Your task to perform on an android device: allow cookies in the chrome app Image 0: 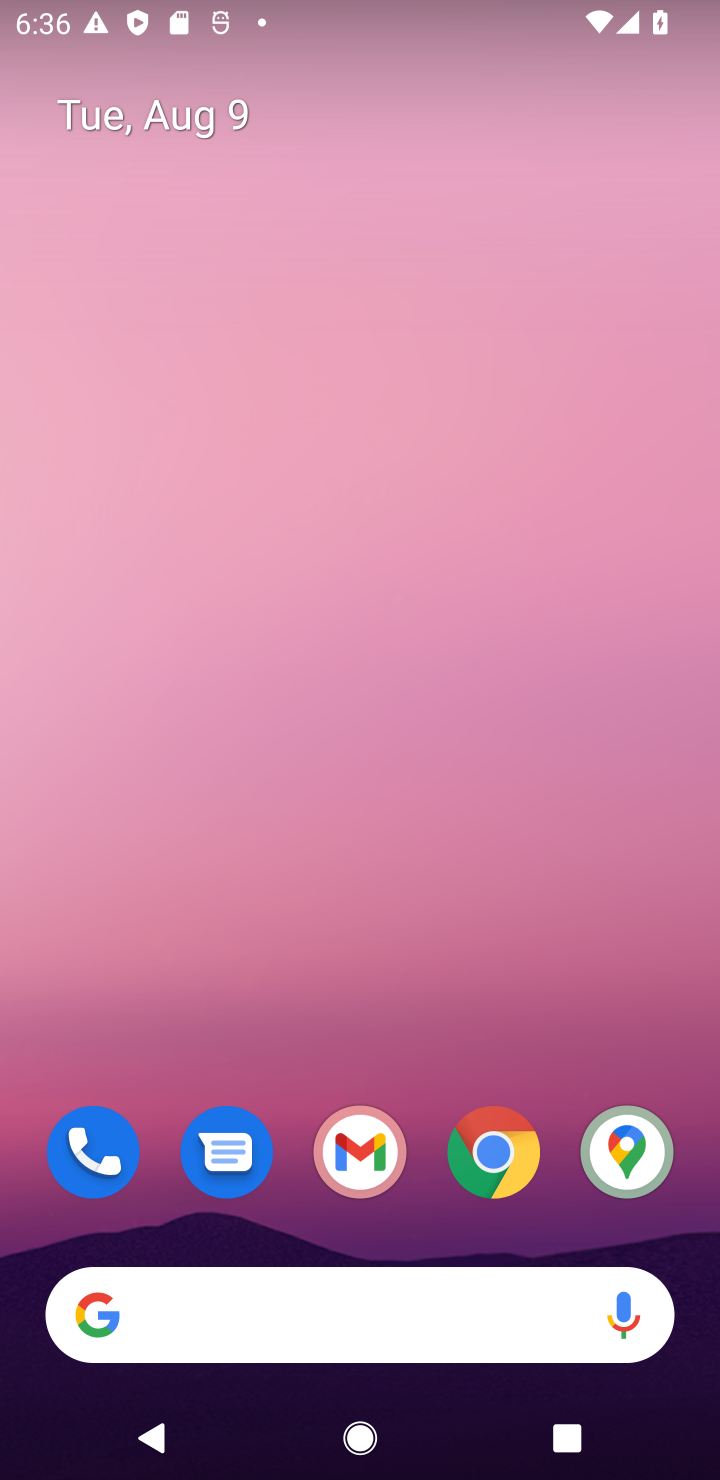
Step 0: press back button
Your task to perform on an android device: allow cookies in the chrome app Image 1: 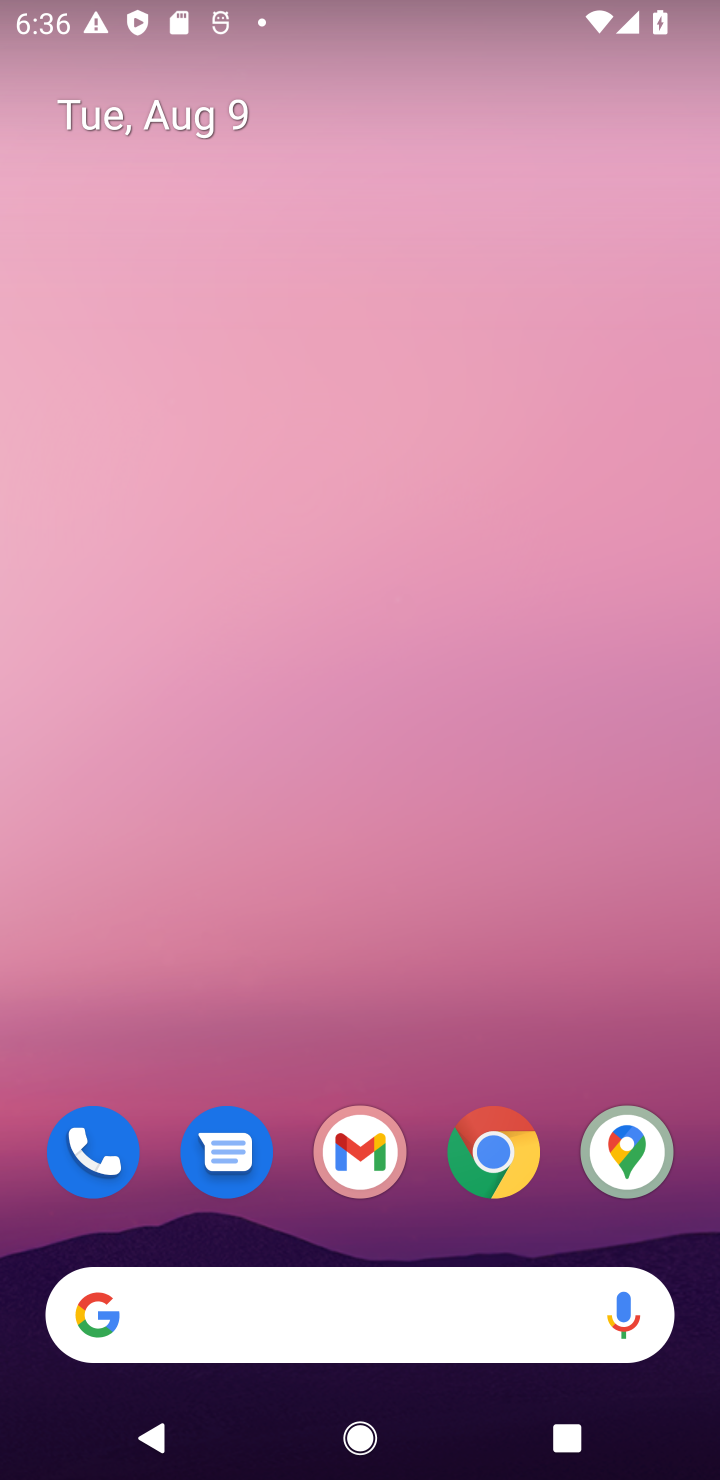
Step 1: drag from (420, 1250) to (514, 115)
Your task to perform on an android device: allow cookies in the chrome app Image 2: 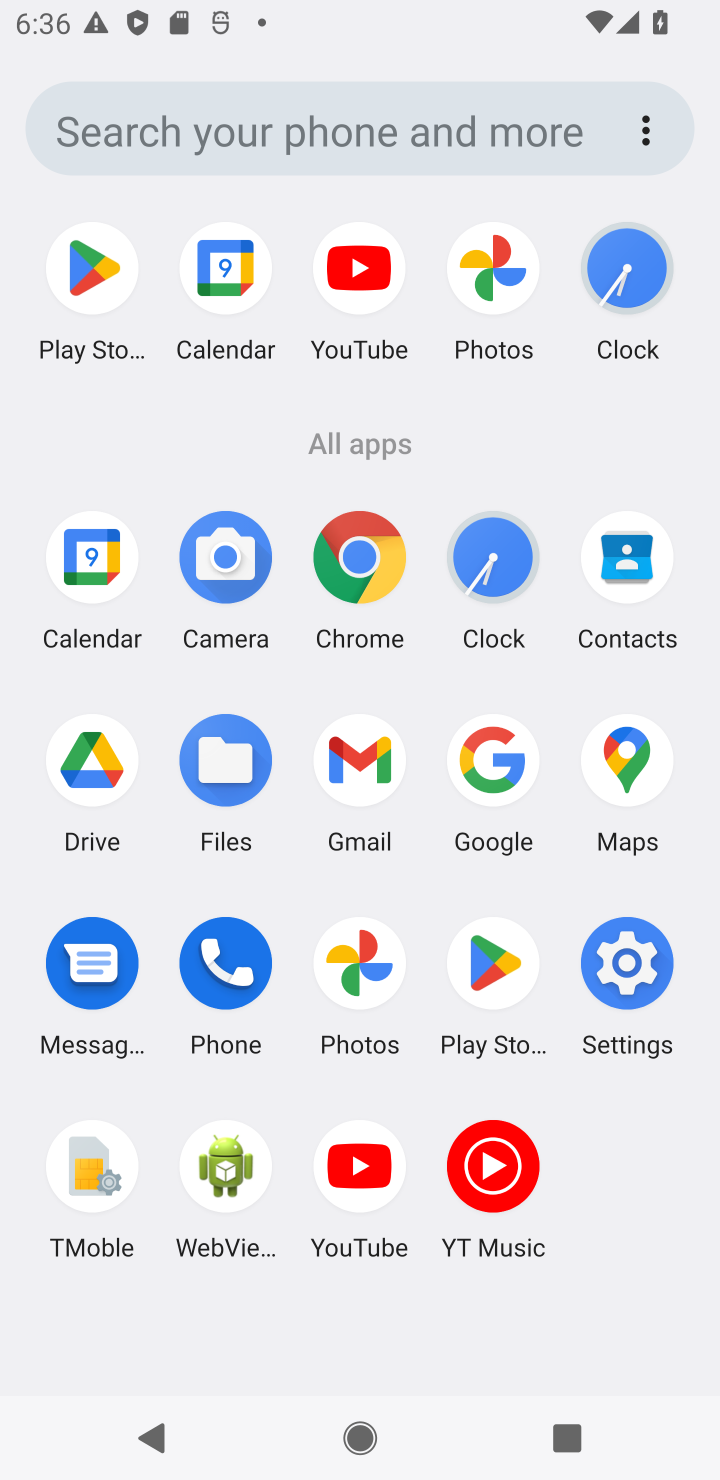
Step 2: click (371, 544)
Your task to perform on an android device: allow cookies in the chrome app Image 3: 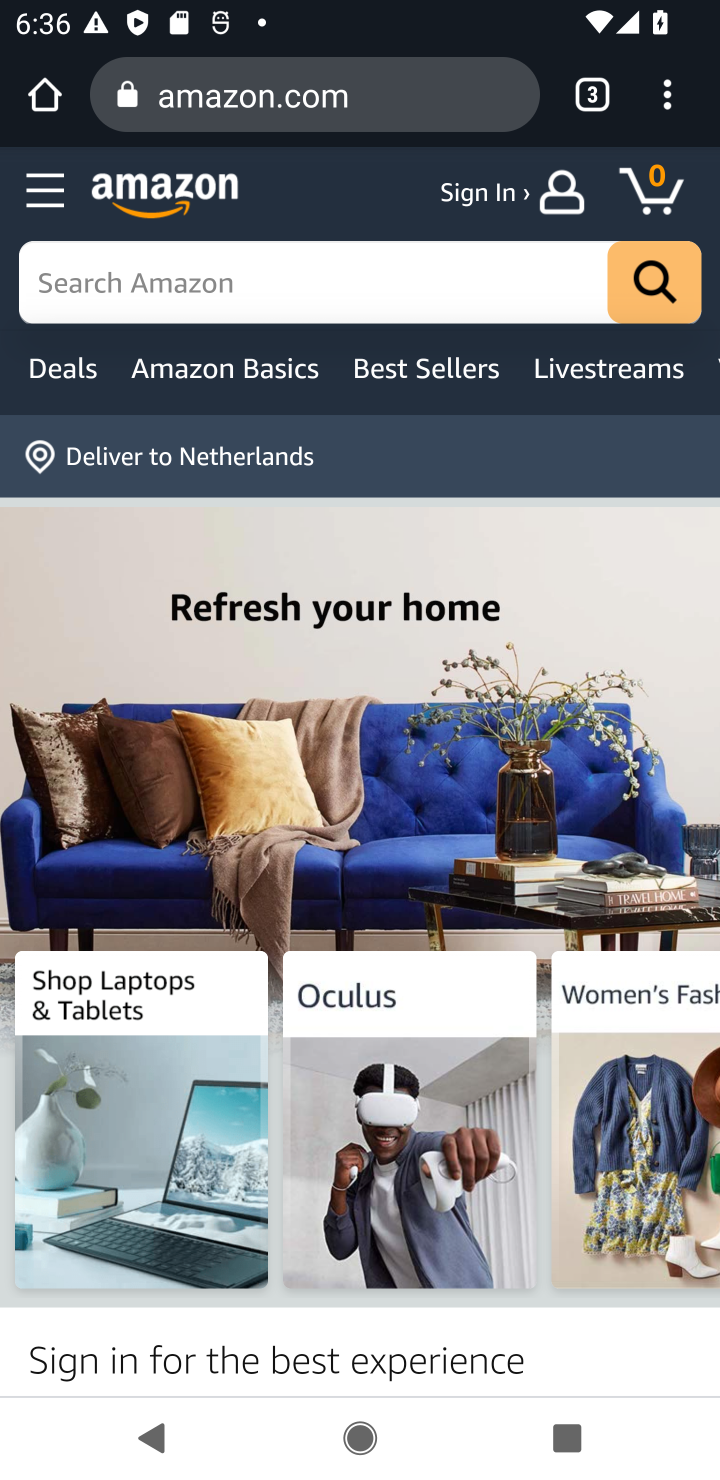
Step 3: drag from (677, 108) to (365, 398)
Your task to perform on an android device: allow cookies in the chrome app Image 4: 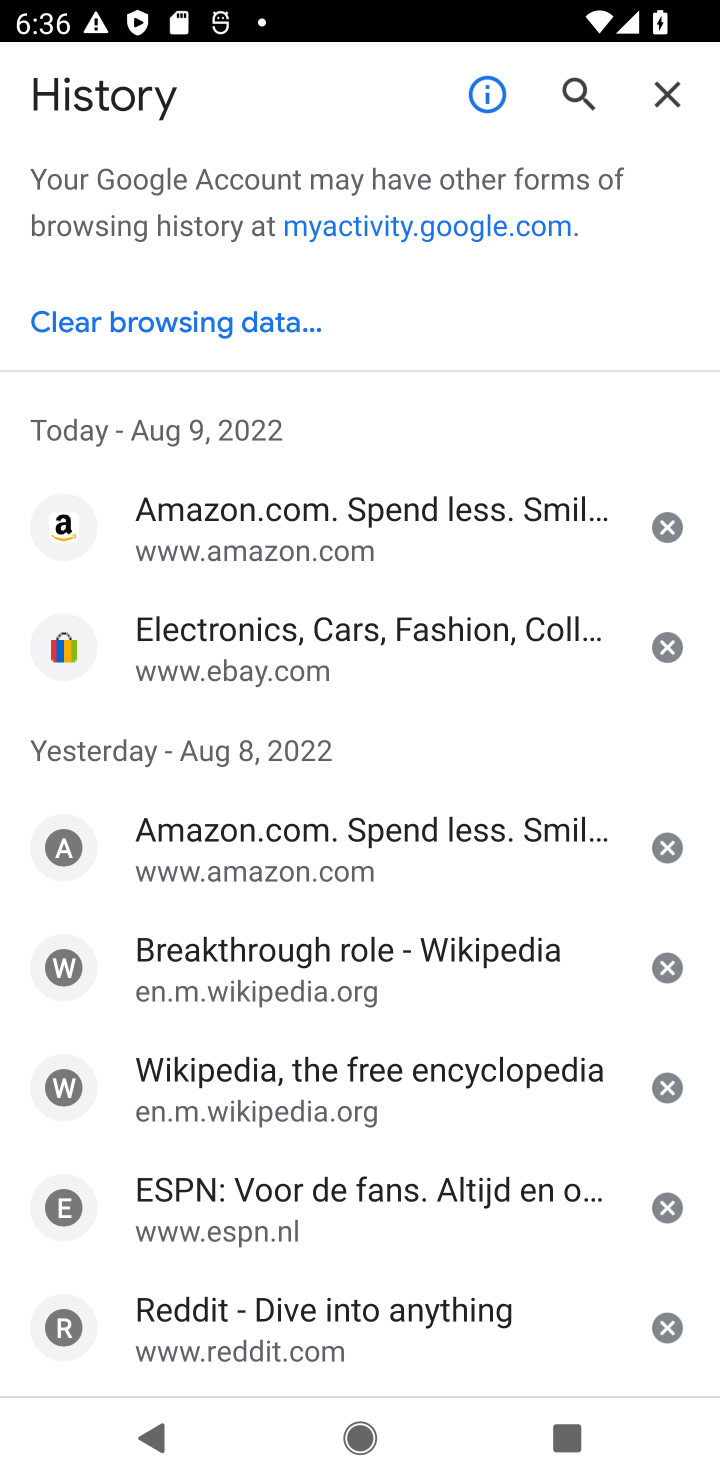
Step 4: click (232, 329)
Your task to perform on an android device: allow cookies in the chrome app Image 5: 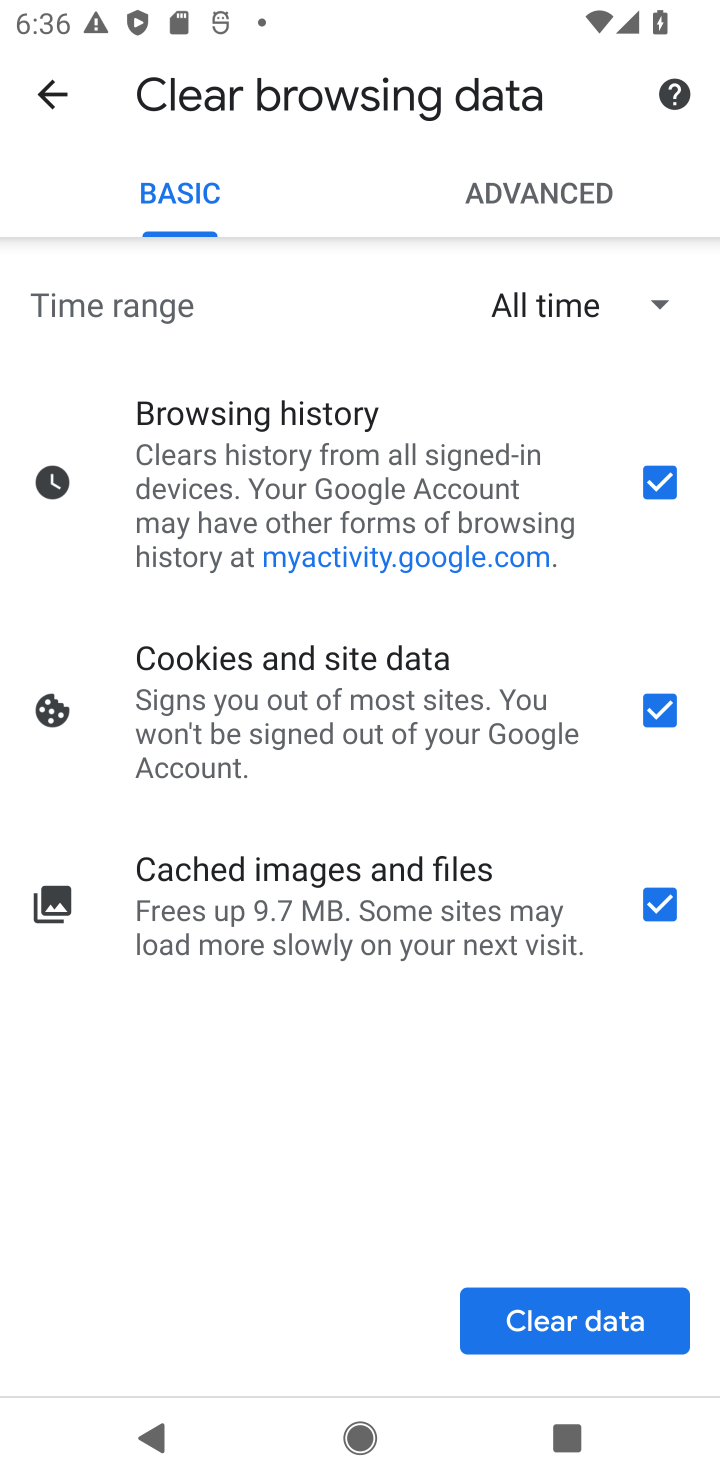
Step 5: click (665, 468)
Your task to perform on an android device: allow cookies in the chrome app Image 6: 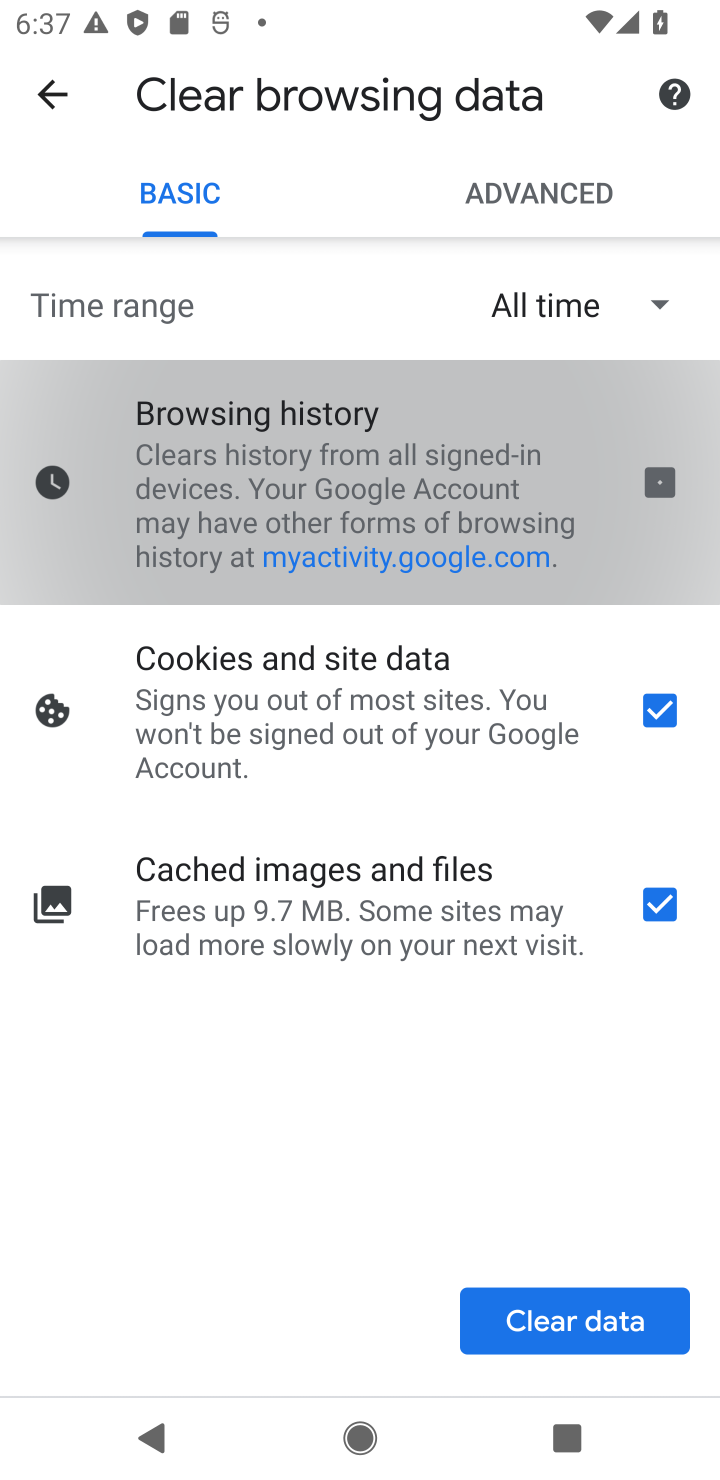
Step 6: click (662, 894)
Your task to perform on an android device: allow cookies in the chrome app Image 7: 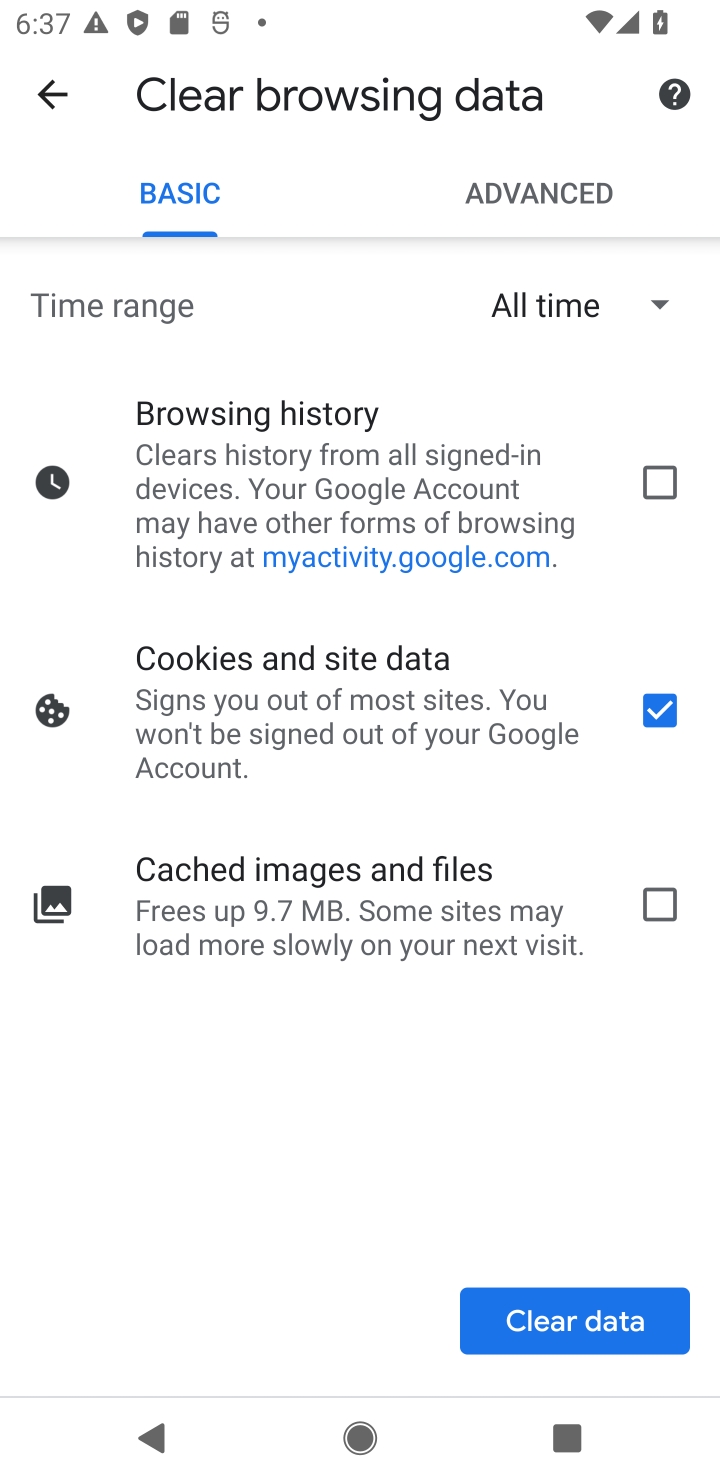
Step 7: click (537, 1295)
Your task to perform on an android device: allow cookies in the chrome app Image 8: 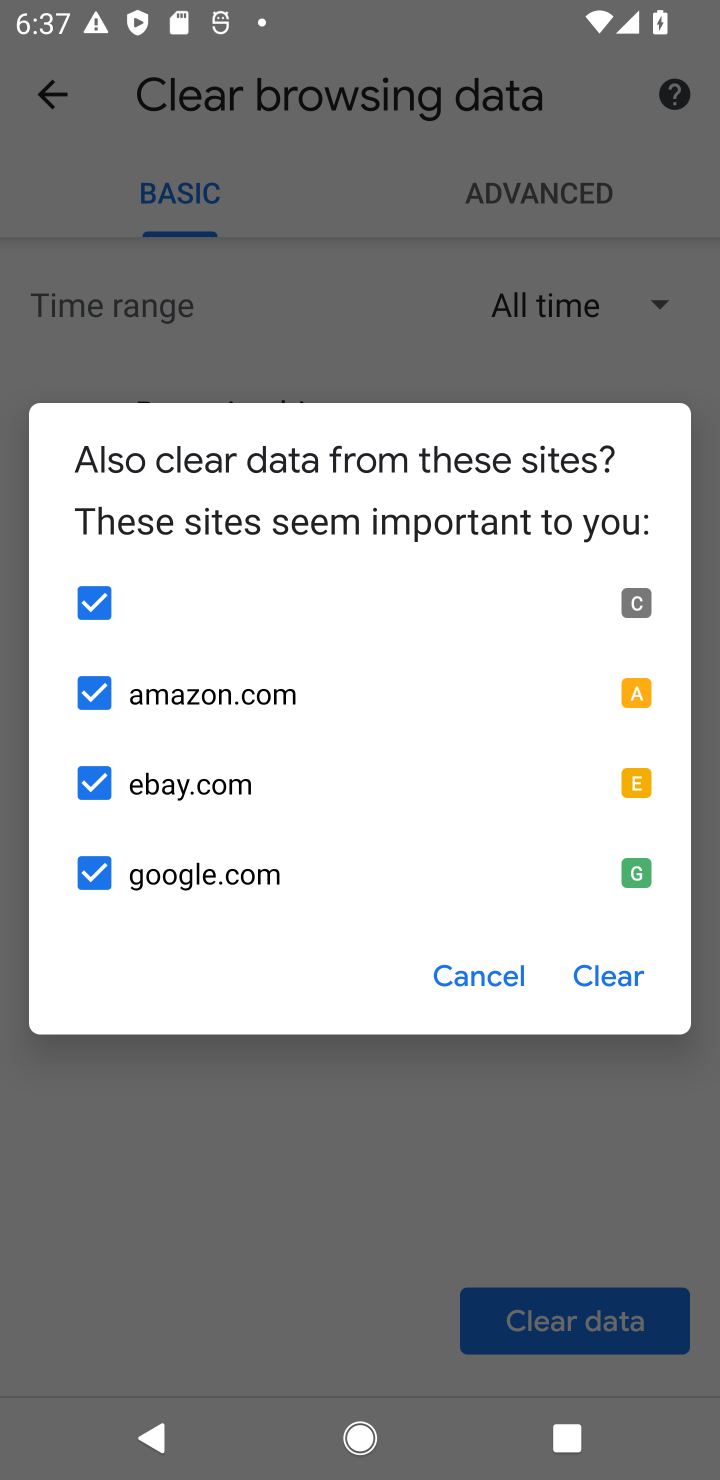
Step 8: click (629, 965)
Your task to perform on an android device: allow cookies in the chrome app Image 9: 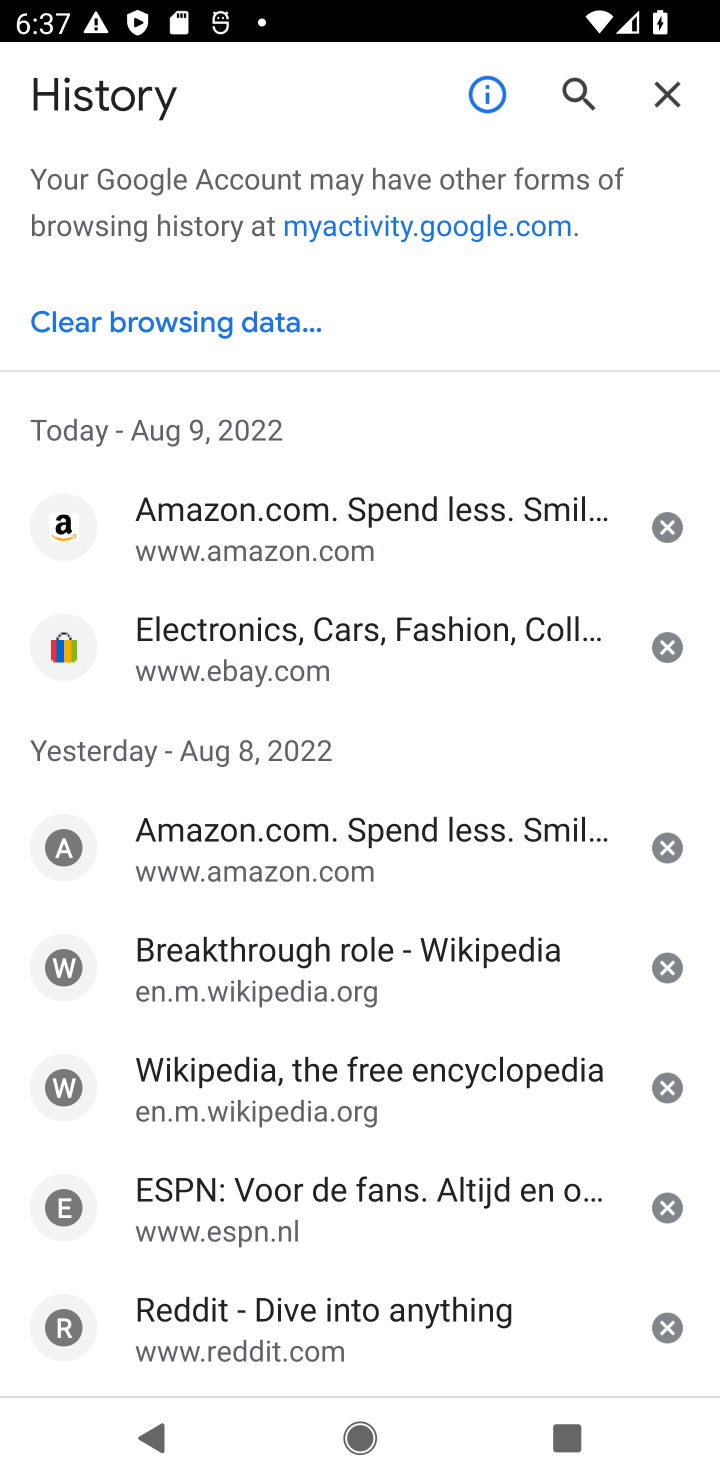
Step 9: task complete